Your task to perform on an android device: clear history in the chrome app Image 0: 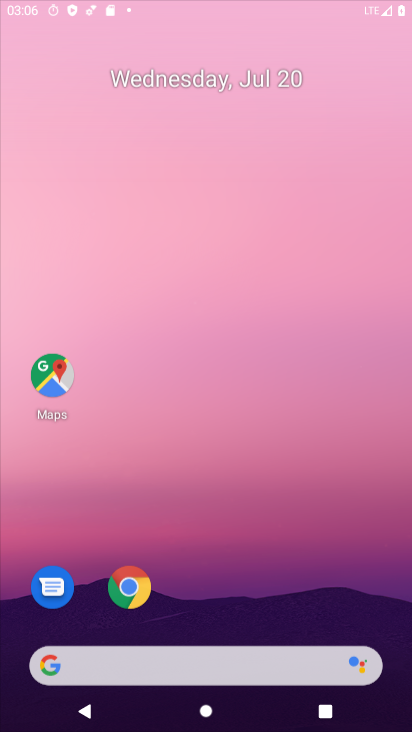
Step 0: click (317, 59)
Your task to perform on an android device: clear history in the chrome app Image 1: 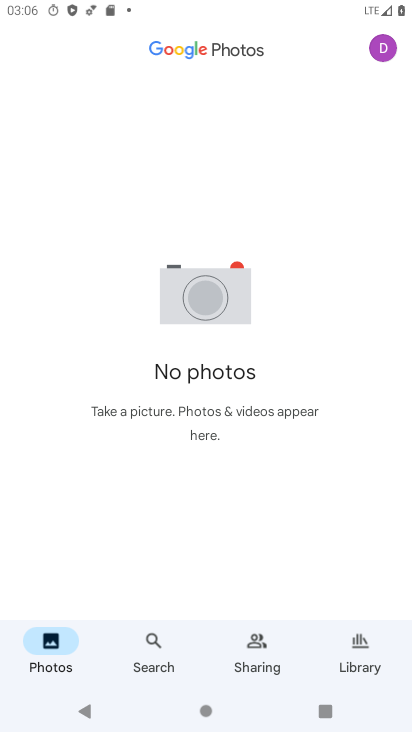
Step 1: click (340, 644)
Your task to perform on an android device: clear history in the chrome app Image 2: 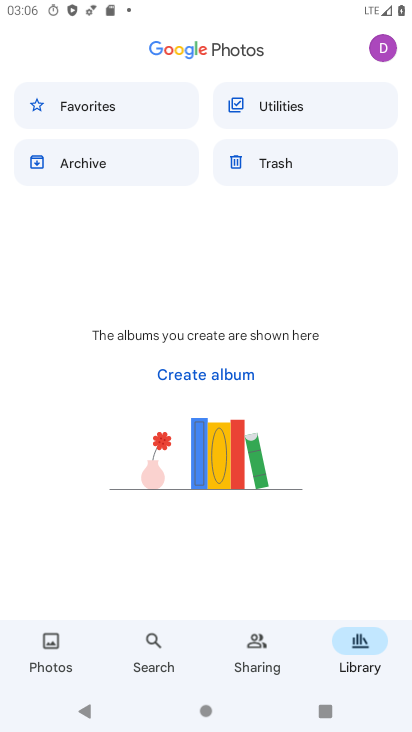
Step 2: press home button
Your task to perform on an android device: clear history in the chrome app Image 3: 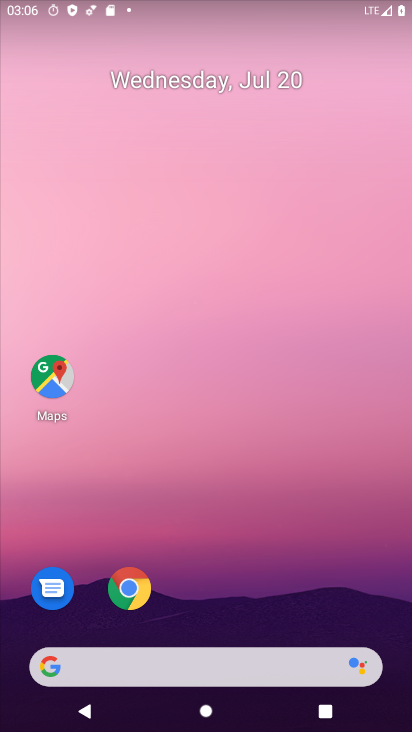
Step 3: drag from (181, 638) to (287, 149)
Your task to perform on an android device: clear history in the chrome app Image 4: 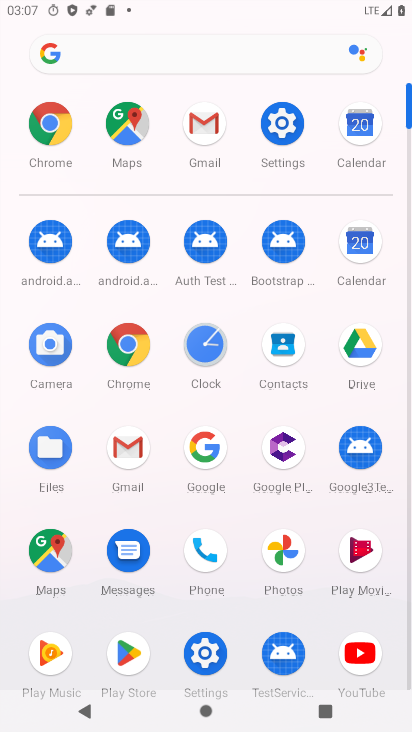
Step 4: click (120, 336)
Your task to perform on an android device: clear history in the chrome app Image 5: 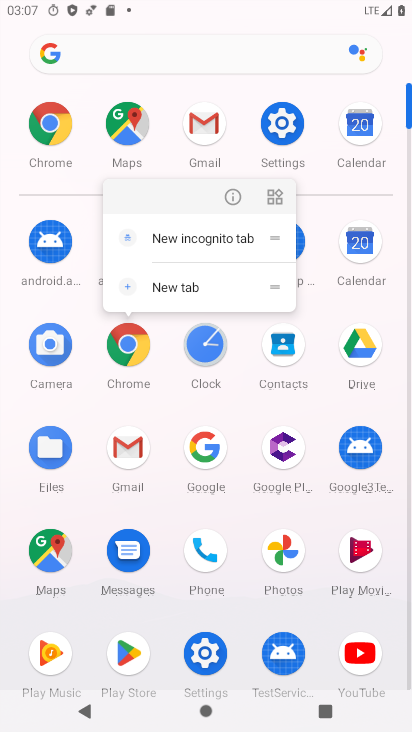
Step 5: click (233, 192)
Your task to perform on an android device: clear history in the chrome app Image 6: 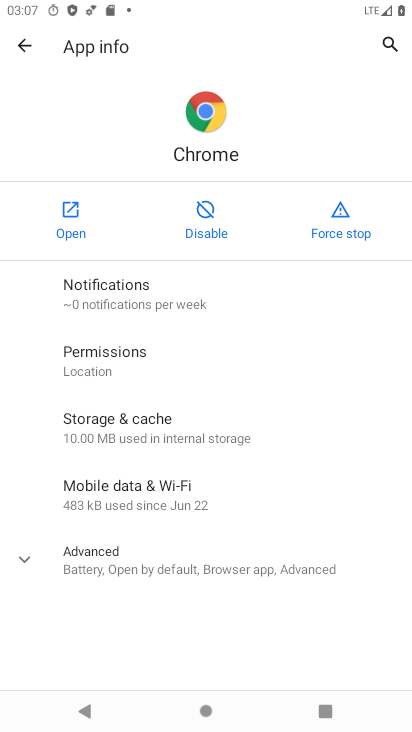
Step 6: click (58, 215)
Your task to perform on an android device: clear history in the chrome app Image 7: 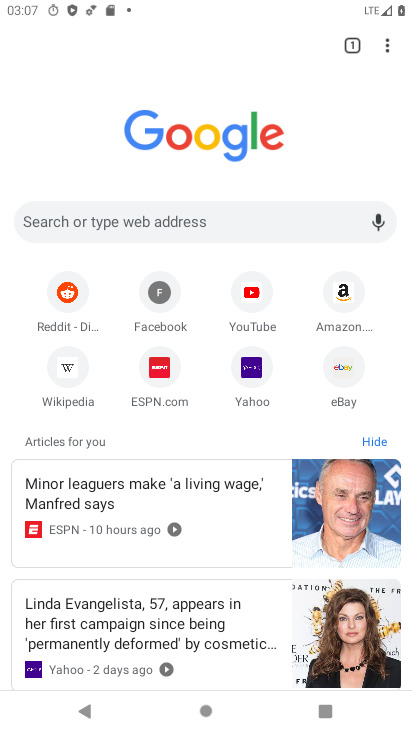
Step 7: drag from (366, 122) to (391, 34)
Your task to perform on an android device: clear history in the chrome app Image 8: 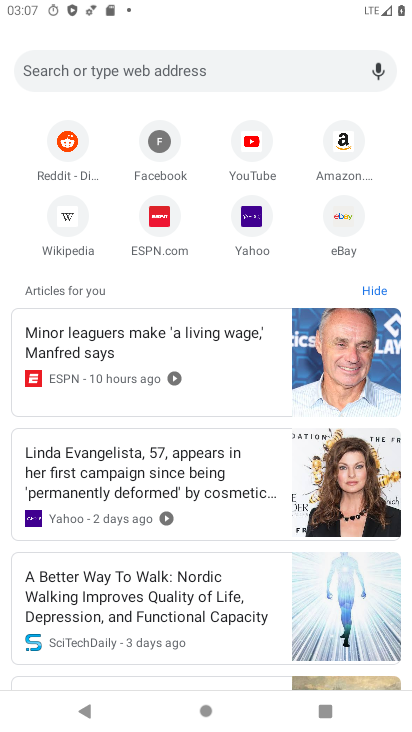
Step 8: drag from (370, 65) to (392, 555)
Your task to perform on an android device: clear history in the chrome app Image 9: 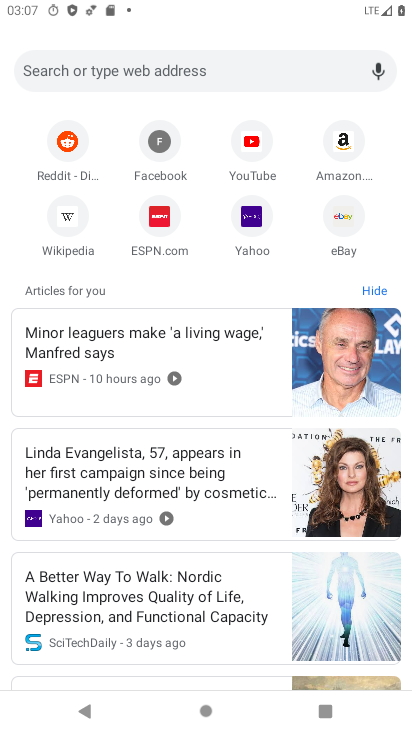
Step 9: drag from (193, 181) to (287, 648)
Your task to perform on an android device: clear history in the chrome app Image 10: 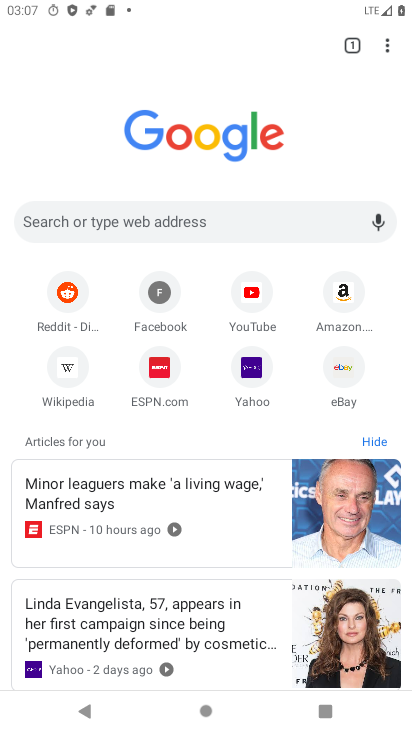
Step 10: drag from (386, 41) to (269, 257)
Your task to perform on an android device: clear history in the chrome app Image 11: 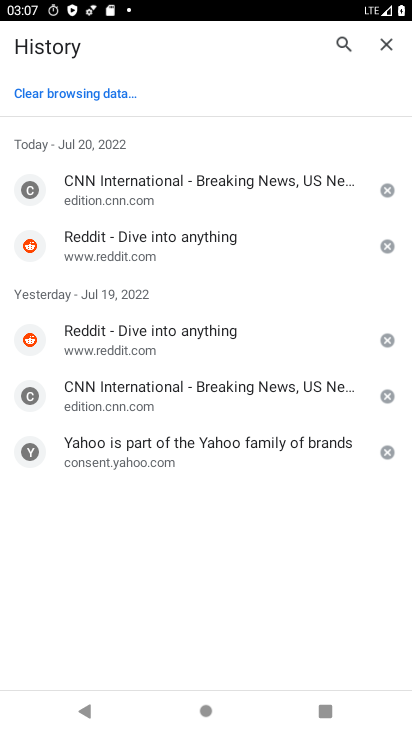
Step 11: drag from (135, 615) to (178, 314)
Your task to perform on an android device: clear history in the chrome app Image 12: 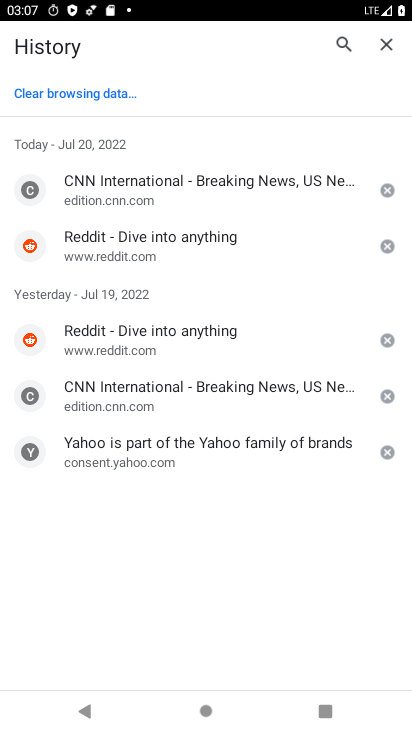
Step 12: click (78, 86)
Your task to perform on an android device: clear history in the chrome app Image 13: 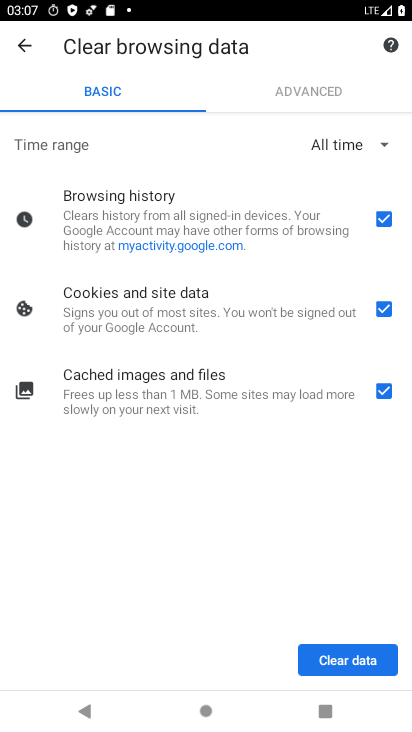
Step 13: click (338, 671)
Your task to perform on an android device: clear history in the chrome app Image 14: 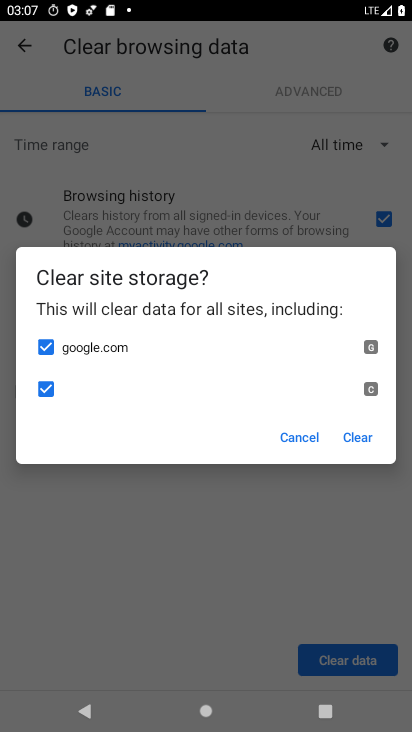
Step 14: click (349, 423)
Your task to perform on an android device: clear history in the chrome app Image 15: 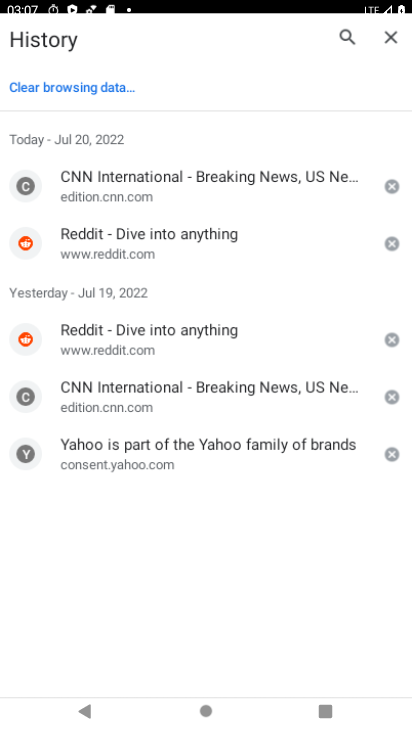
Step 15: task complete